Your task to perform on an android device: change the clock display to analog Image 0: 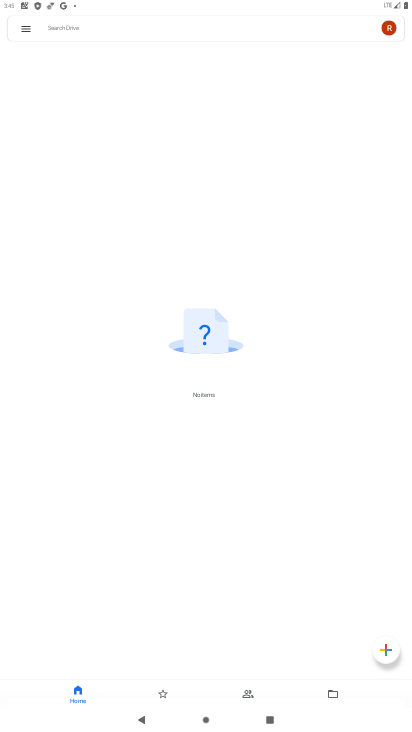
Step 0: press home button
Your task to perform on an android device: change the clock display to analog Image 1: 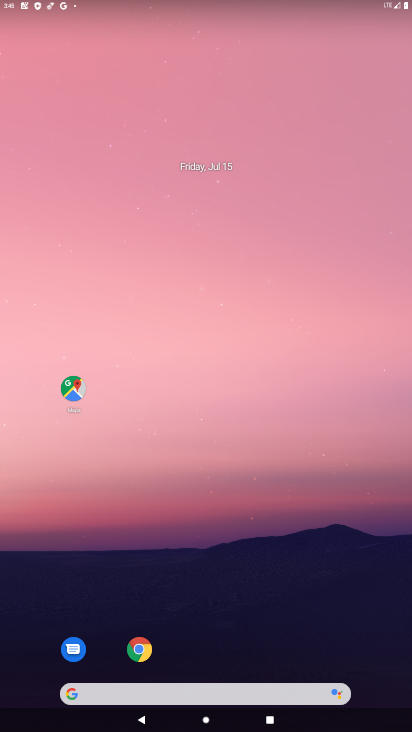
Step 1: drag from (187, 648) to (185, 320)
Your task to perform on an android device: change the clock display to analog Image 2: 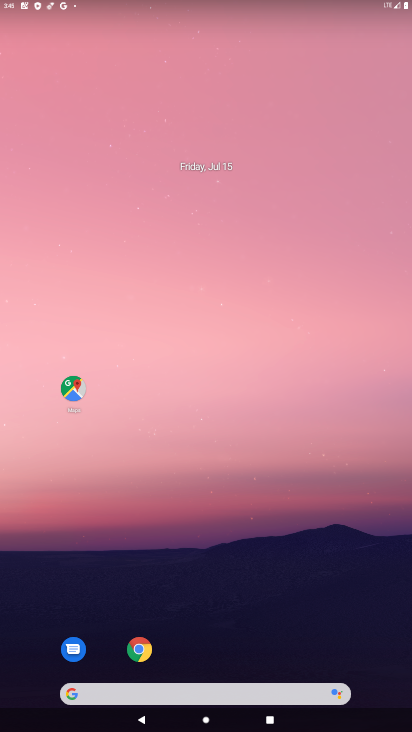
Step 2: drag from (207, 654) to (219, 295)
Your task to perform on an android device: change the clock display to analog Image 3: 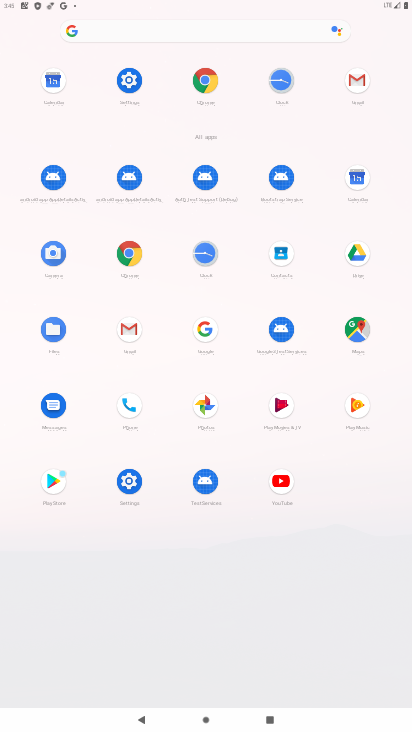
Step 3: click (283, 91)
Your task to perform on an android device: change the clock display to analog Image 4: 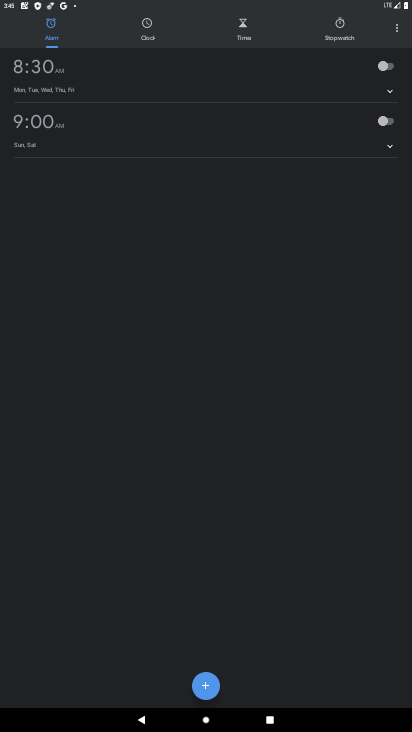
Step 4: click (399, 19)
Your task to perform on an android device: change the clock display to analog Image 5: 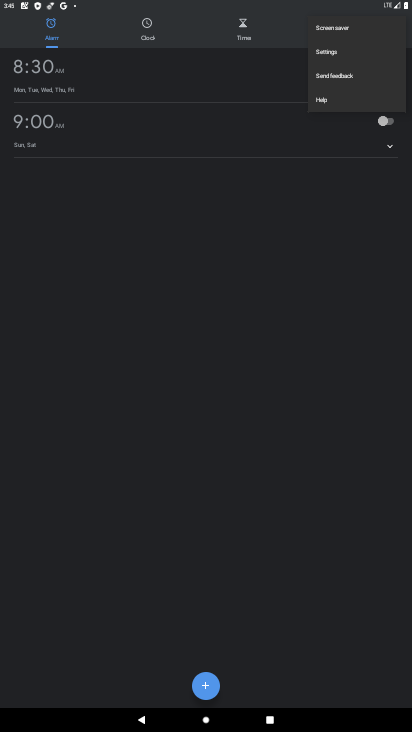
Step 5: click (346, 57)
Your task to perform on an android device: change the clock display to analog Image 6: 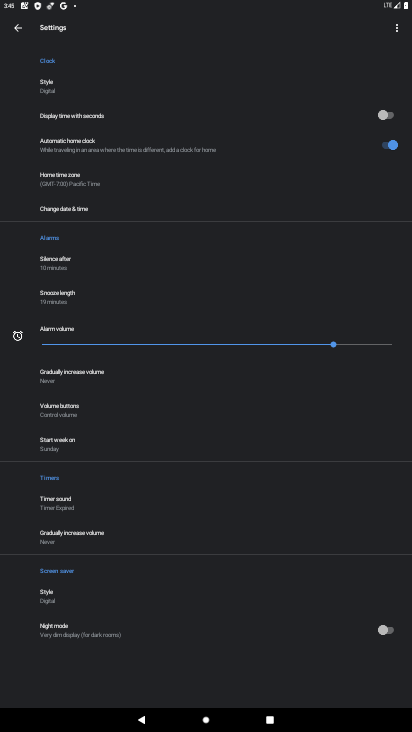
Step 6: click (72, 92)
Your task to perform on an android device: change the clock display to analog Image 7: 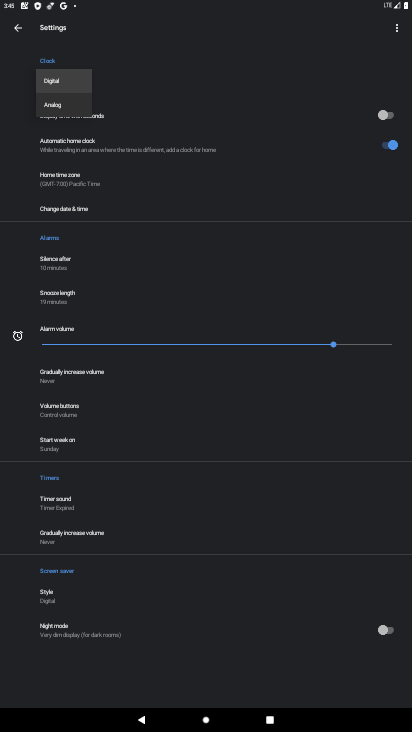
Step 7: click (70, 107)
Your task to perform on an android device: change the clock display to analog Image 8: 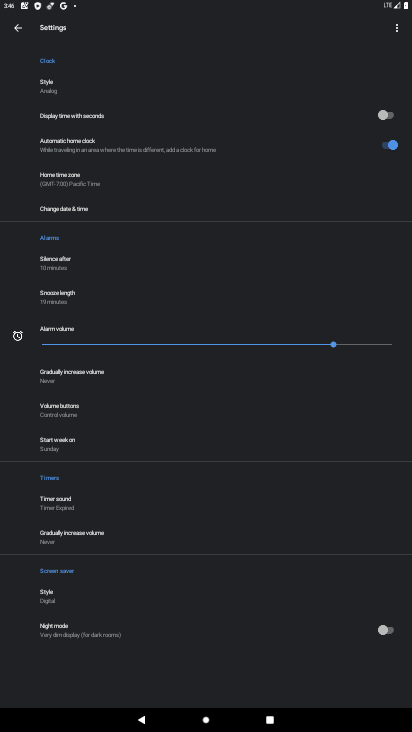
Step 8: task complete